Your task to perform on an android device: change your default location settings in chrome Image 0: 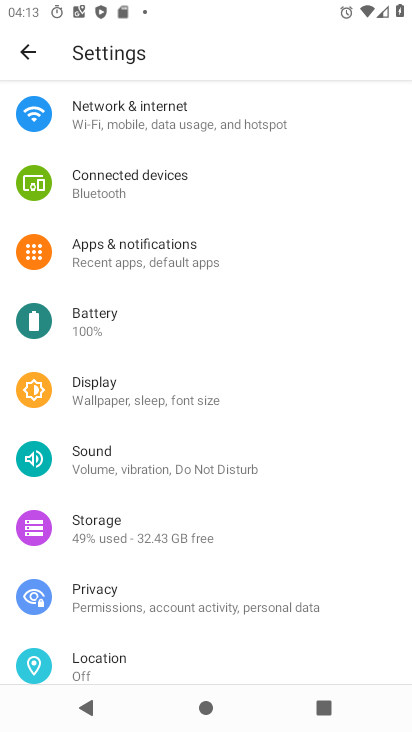
Step 0: press home button
Your task to perform on an android device: change your default location settings in chrome Image 1: 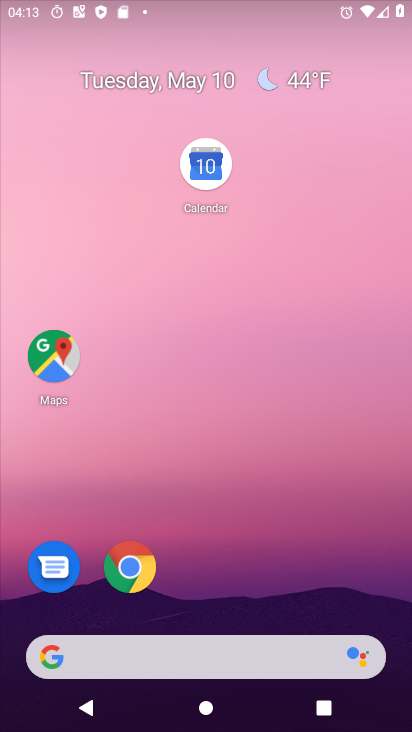
Step 1: drag from (249, 589) to (297, 99)
Your task to perform on an android device: change your default location settings in chrome Image 2: 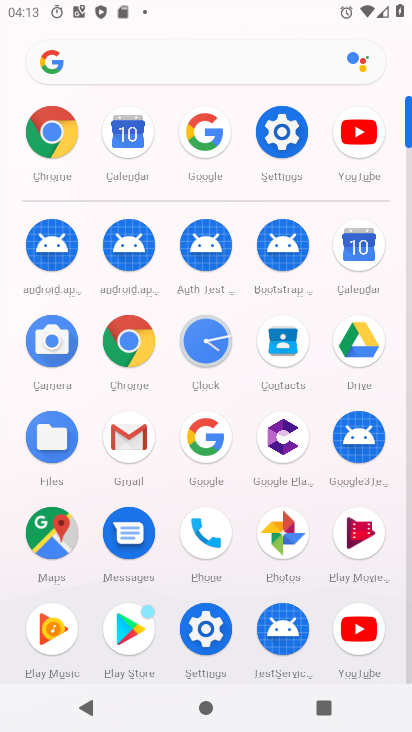
Step 2: click (48, 132)
Your task to perform on an android device: change your default location settings in chrome Image 3: 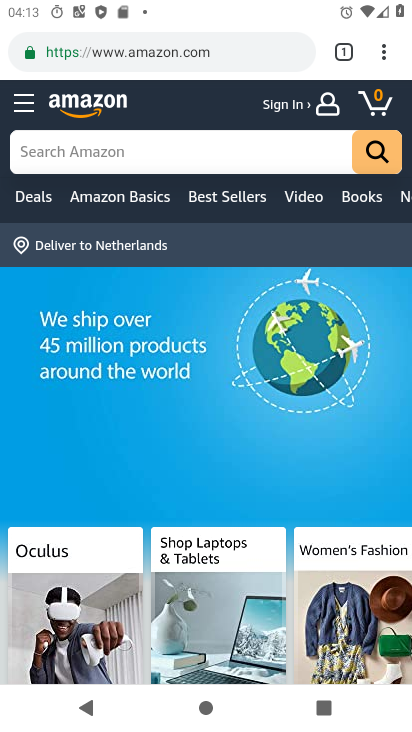
Step 3: click (375, 52)
Your task to perform on an android device: change your default location settings in chrome Image 4: 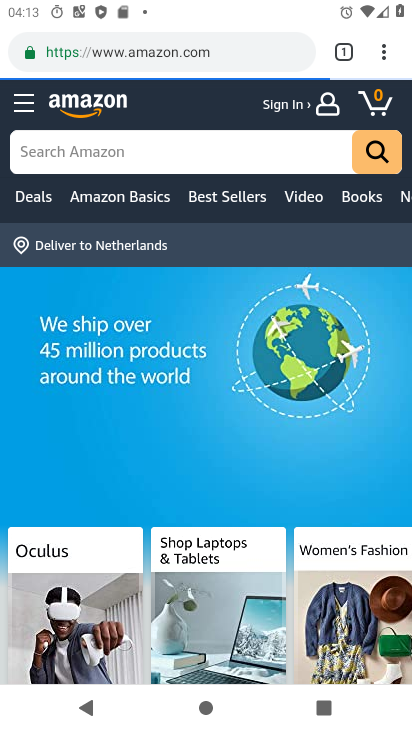
Step 4: click (375, 51)
Your task to perform on an android device: change your default location settings in chrome Image 5: 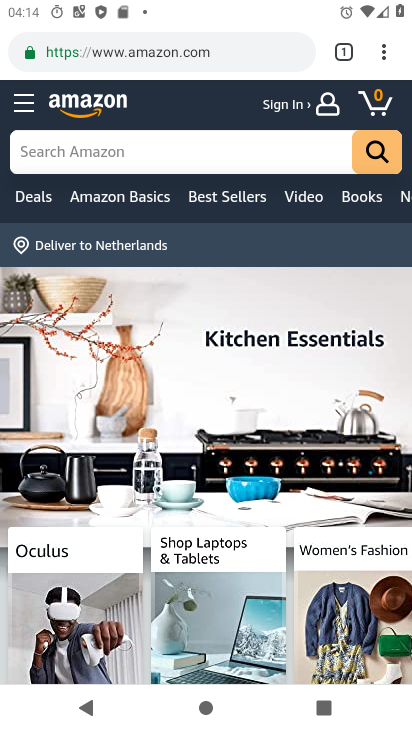
Step 5: click (375, 51)
Your task to perform on an android device: change your default location settings in chrome Image 6: 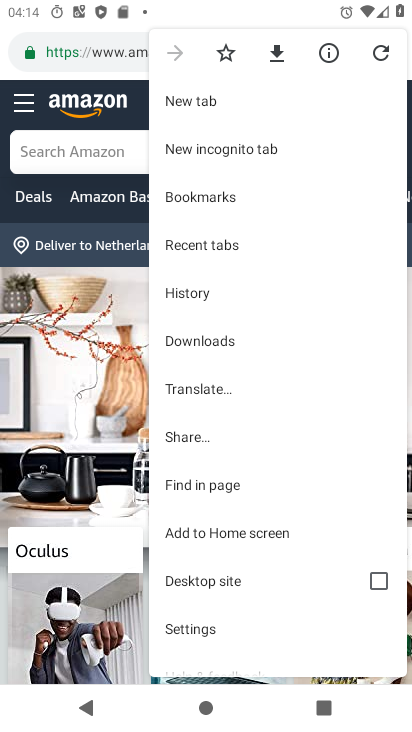
Step 6: click (190, 642)
Your task to perform on an android device: change your default location settings in chrome Image 7: 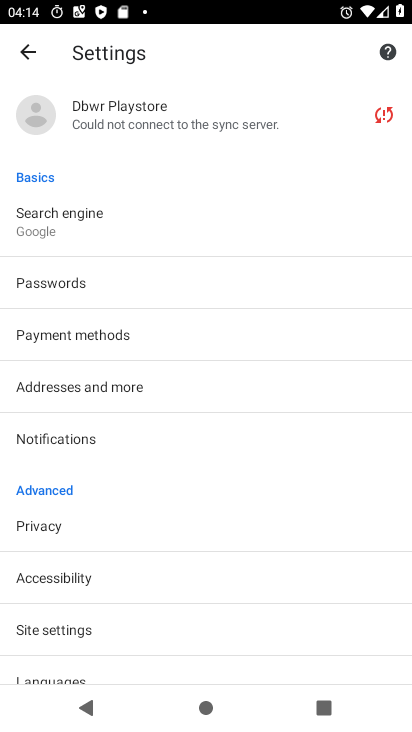
Step 7: drag from (221, 587) to (236, 323)
Your task to perform on an android device: change your default location settings in chrome Image 8: 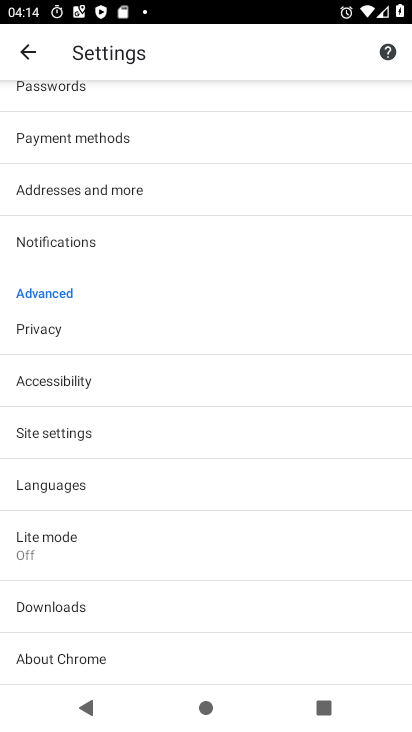
Step 8: drag from (138, 142) to (173, 477)
Your task to perform on an android device: change your default location settings in chrome Image 9: 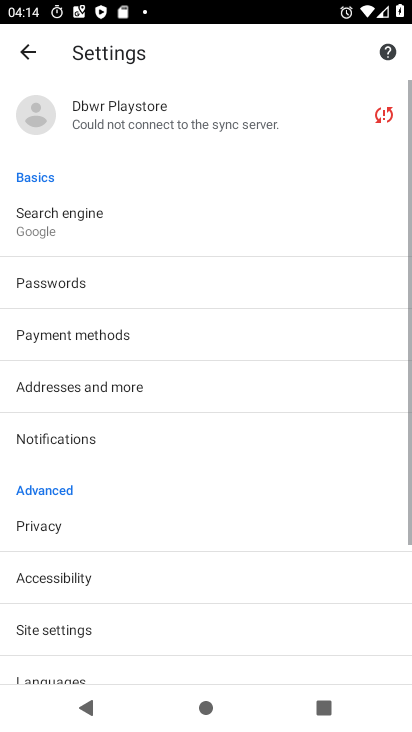
Step 9: click (87, 224)
Your task to perform on an android device: change your default location settings in chrome Image 10: 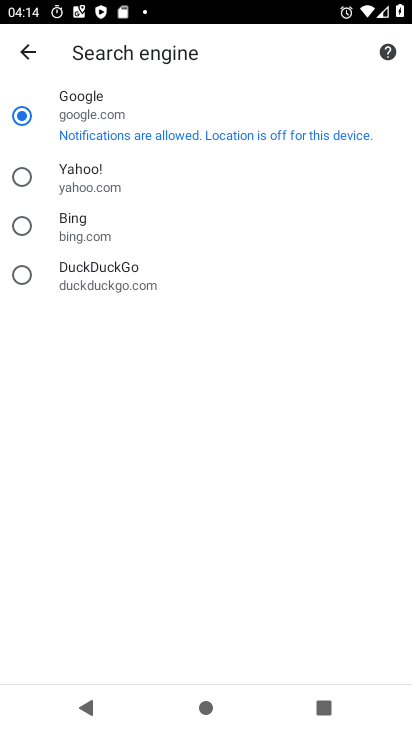
Step 10: task complete